Your task to perform on an android device: Search for "jbl charge 4" on walmart.com, select the first entry, and add it to the cart. Image 0: 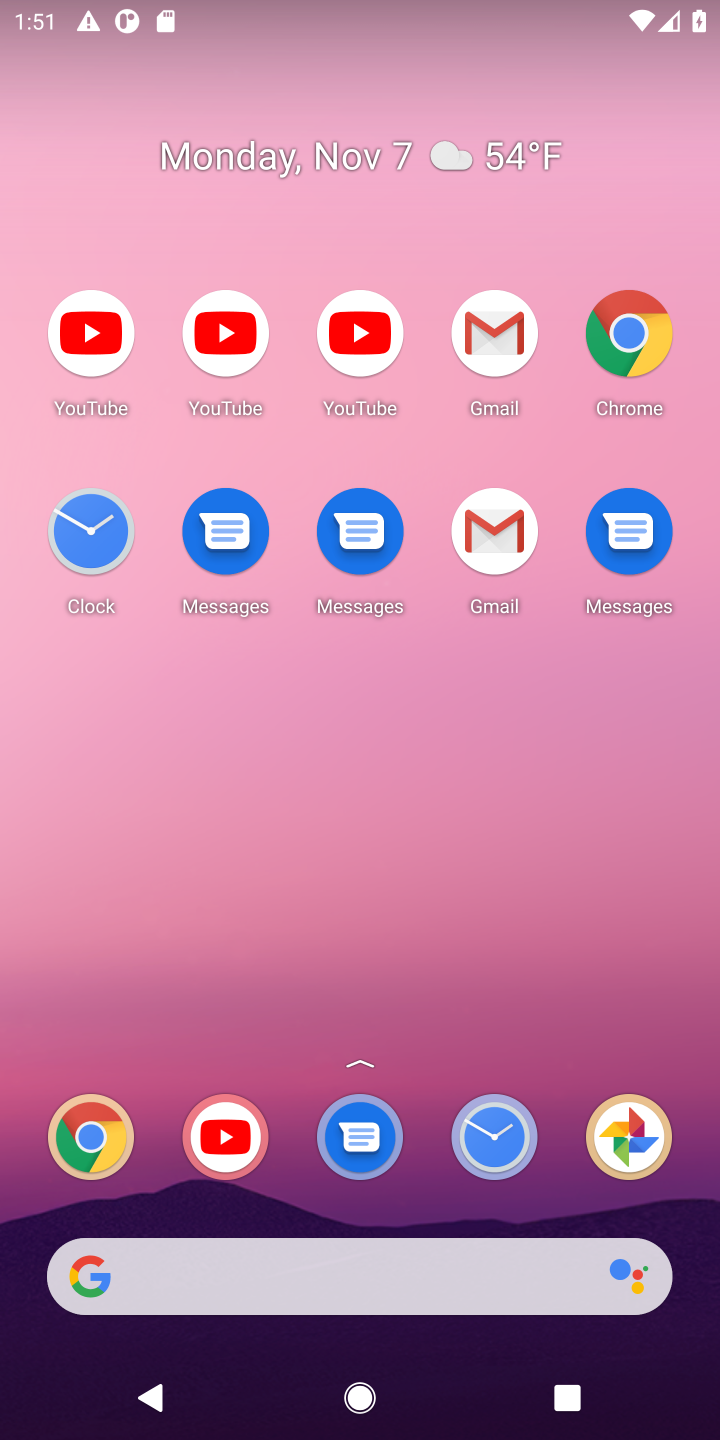
Step 0: drag from (416, 1206) to (360, 290)
Your task to perform on an android device: Search for "jbl charge 4" on walmart.com, select the first entry, and add it to the cart. Image 1: 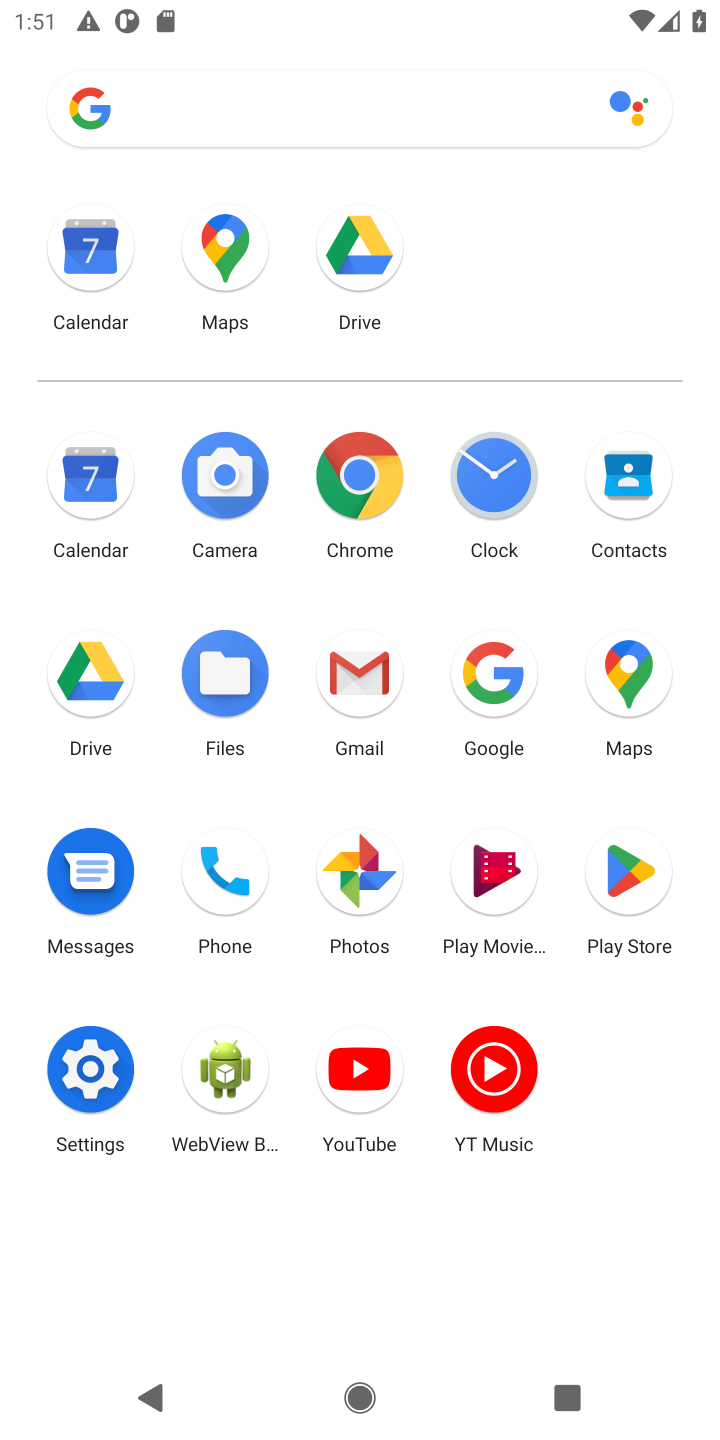
Step 1: click (351, 480)
Your task to perform on an android device: Search for "jbl charge 4" on walmart.com, select the first entry, and add it to the cart. Image 2: 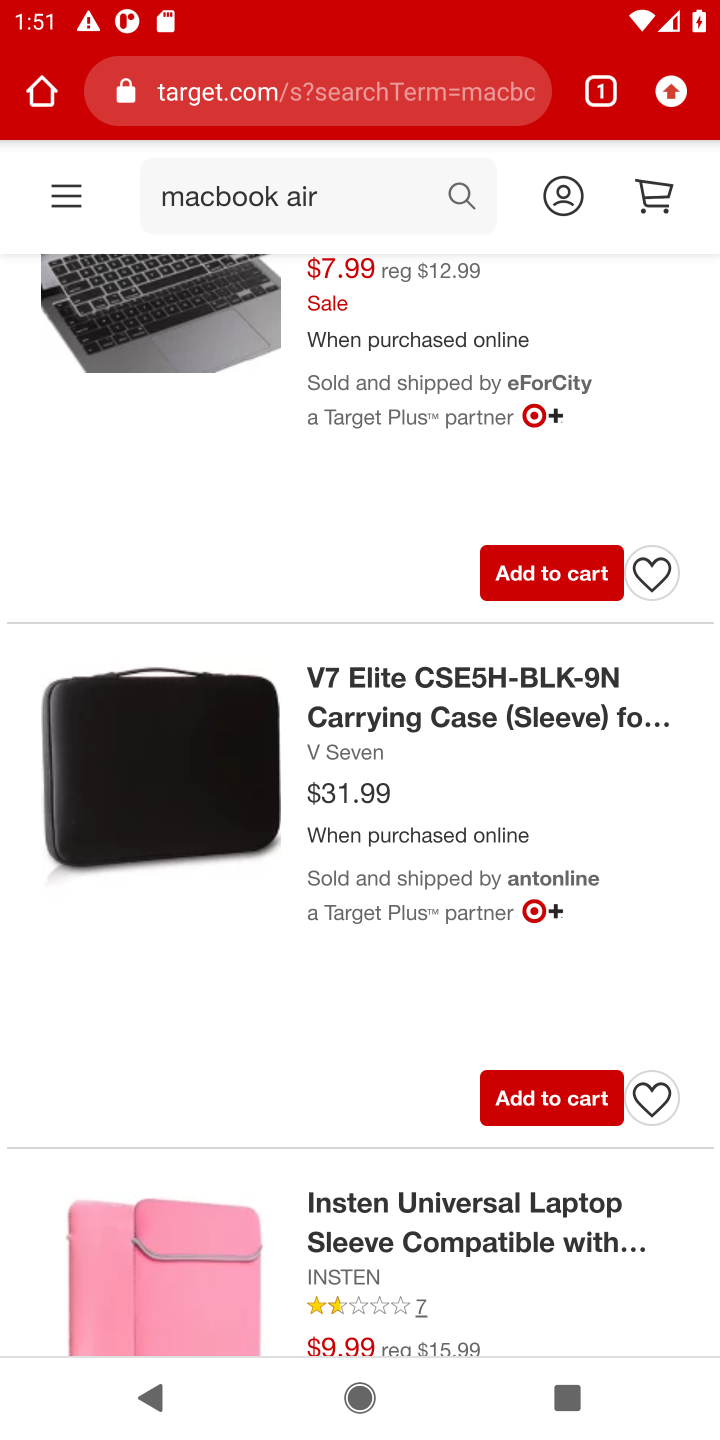
Step 2: click (421, 94)
Your task to perform on an android device: Search for "jbl charge 4" on walmart.com, select the first entry, and add it to the cart. Image 3: 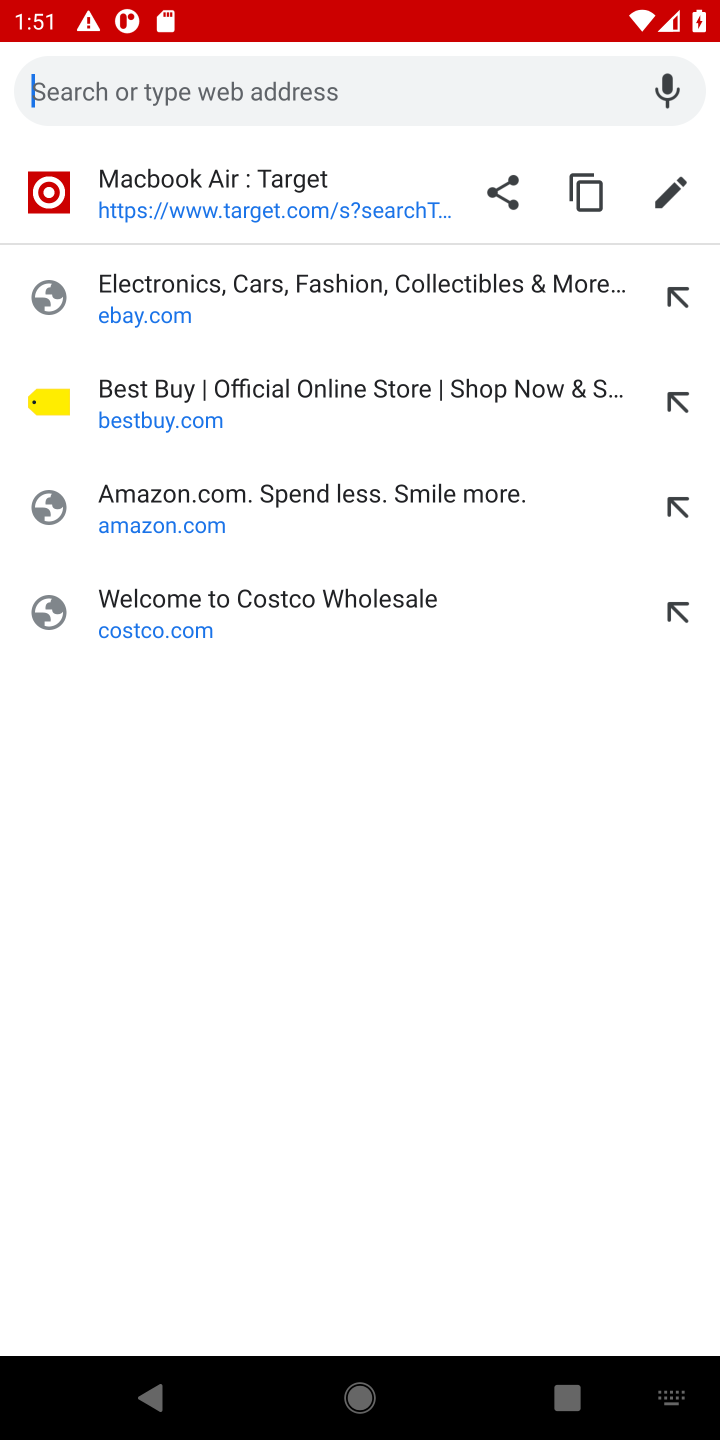
Step 3: type "walmart.com"
Your task to perform on an android device: Search for "jbl charge 4" on walmart.com, select the first entry, and add it to the cart. Image 4: 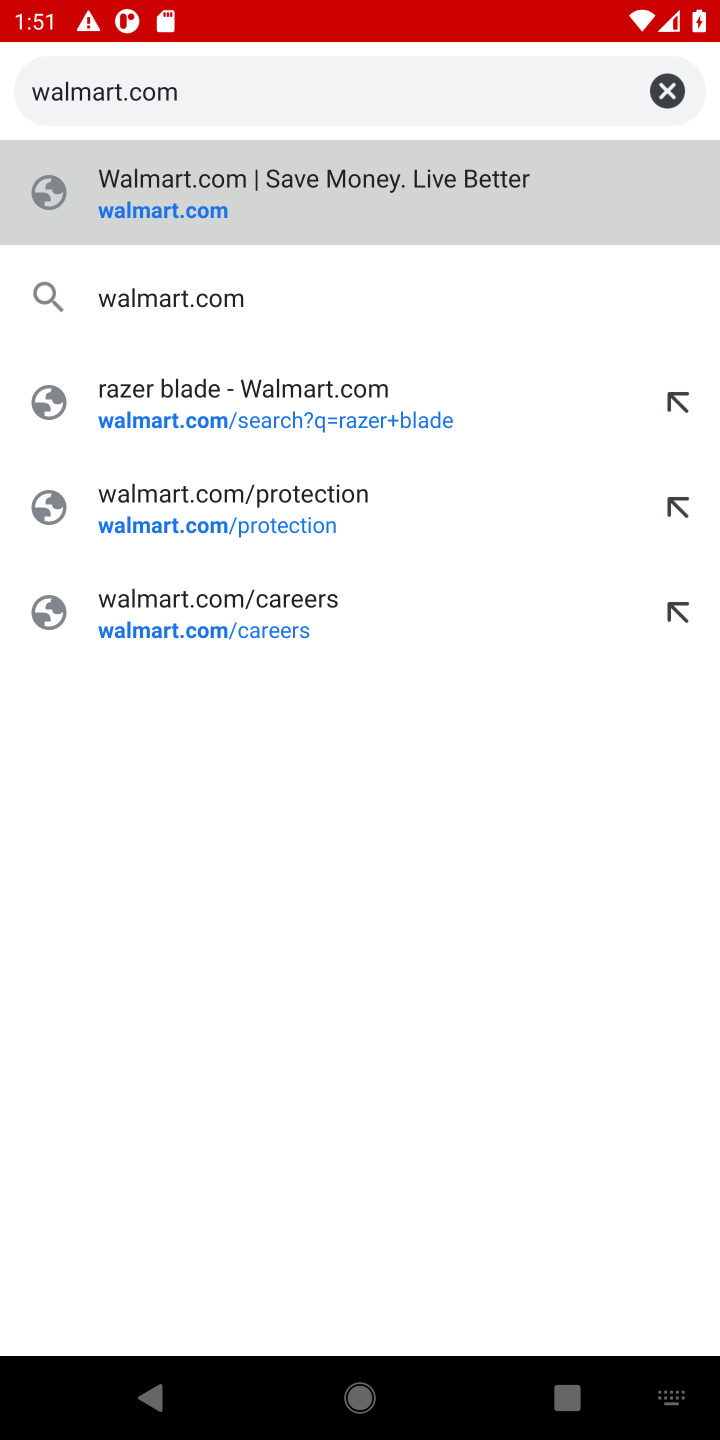
Step 4: press enter
Your task to perform on an android device: Search for "jbl charge 4" on walmart.com, select the first entry, and add it to the cart. Image 5: 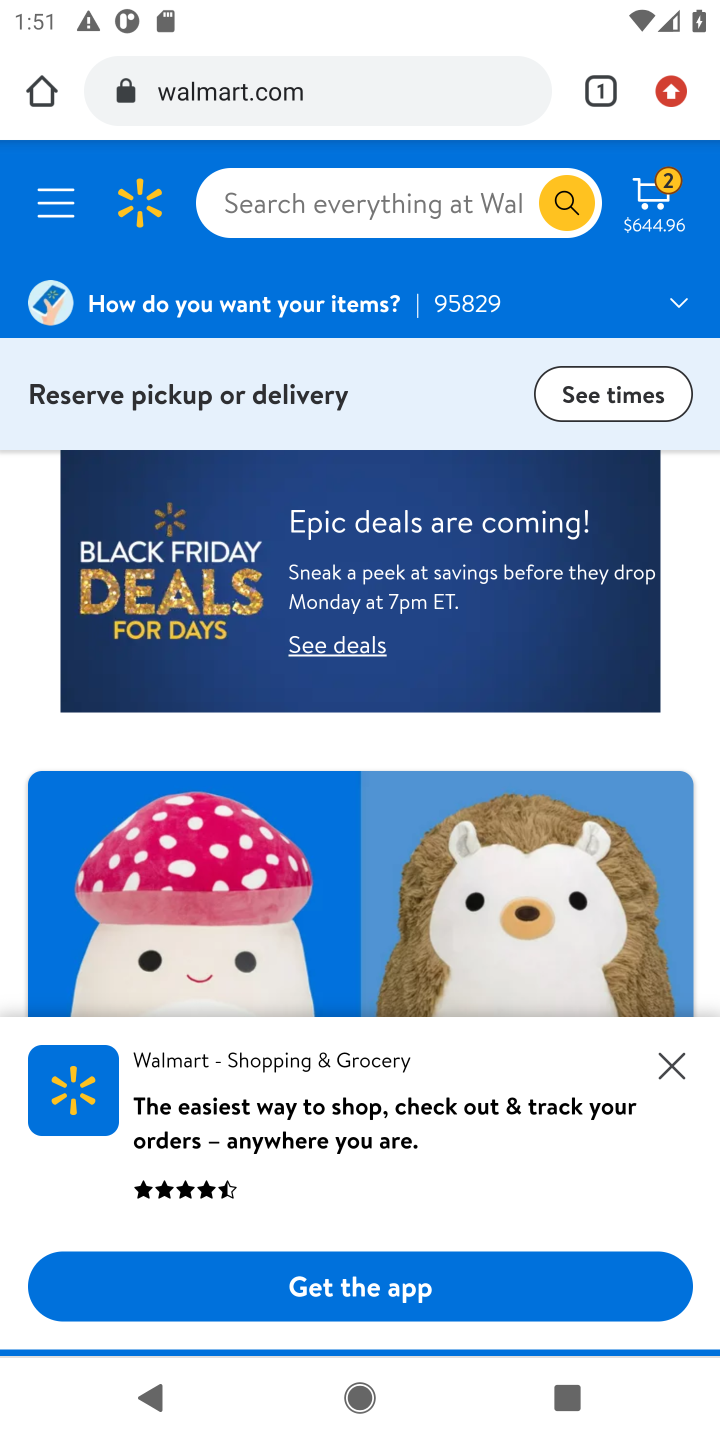
Step 5: click (451, 198)
Your task to perform on an android device: Search for "jbl charge 4" on walmart.com, select the first entry, and add it to the cart. Image 6: 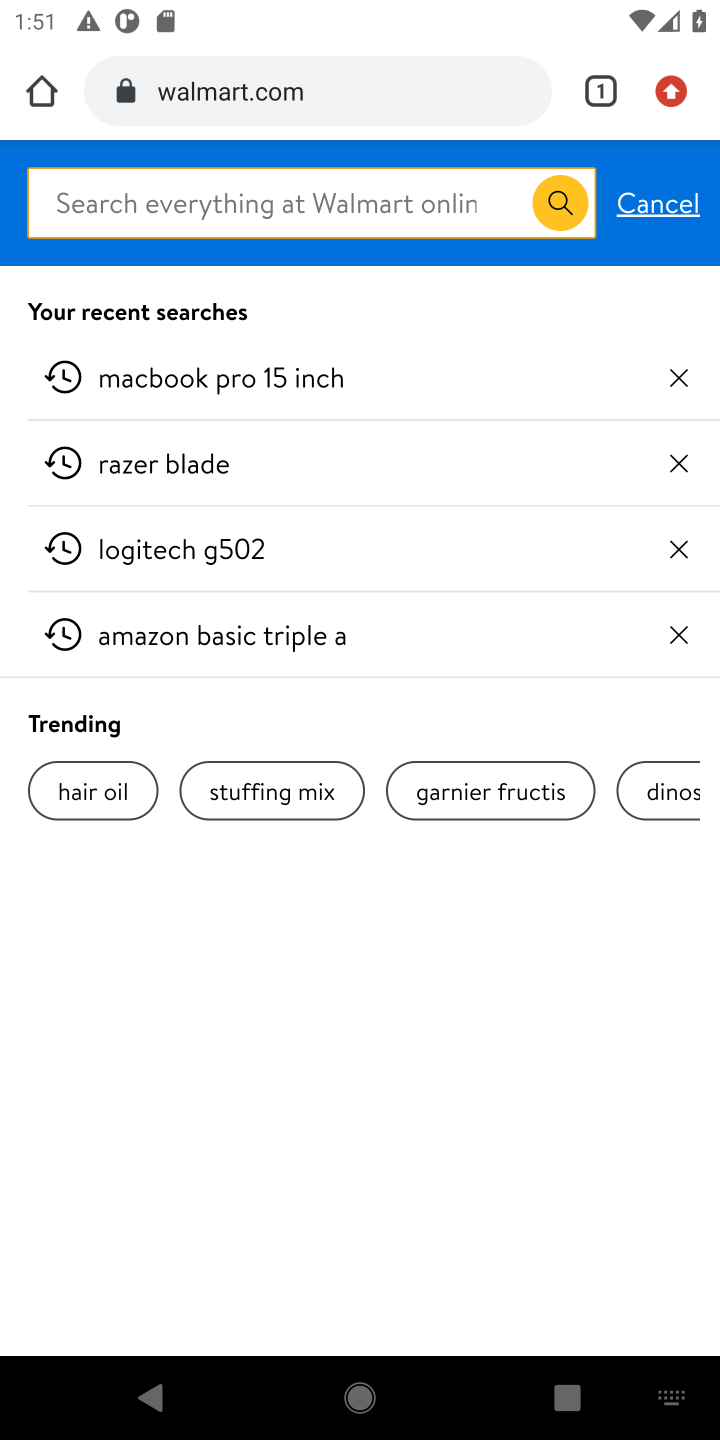
Step 6: type "jbl charge 4"
Your task to perform on an android device: Search for "jbl charge 4" on walmart.com, select the first entry, and add it to the cart. Image 7: 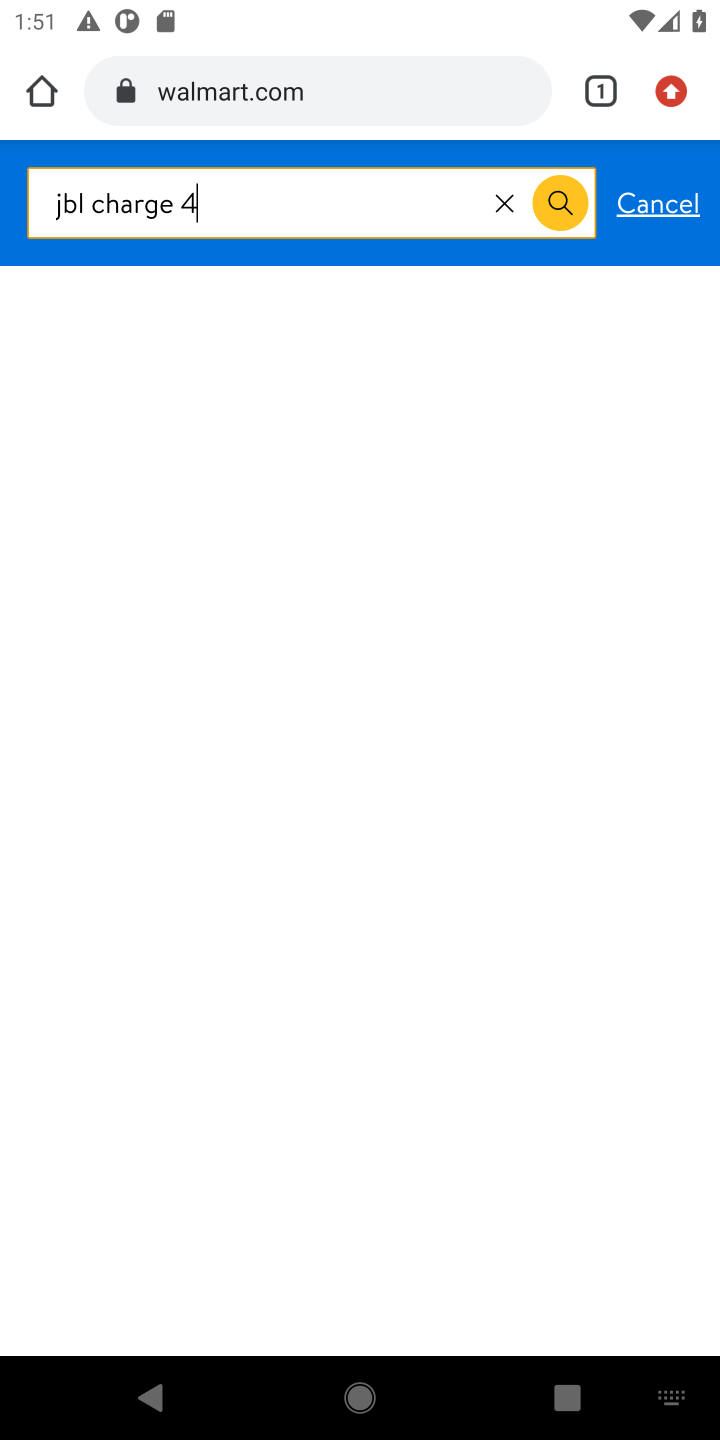
Step 7: press enter
Your task to perform on an android device: Search for "jbl charge 4" on walmart.com, select the first entry, and add it to the cart. Image 8: 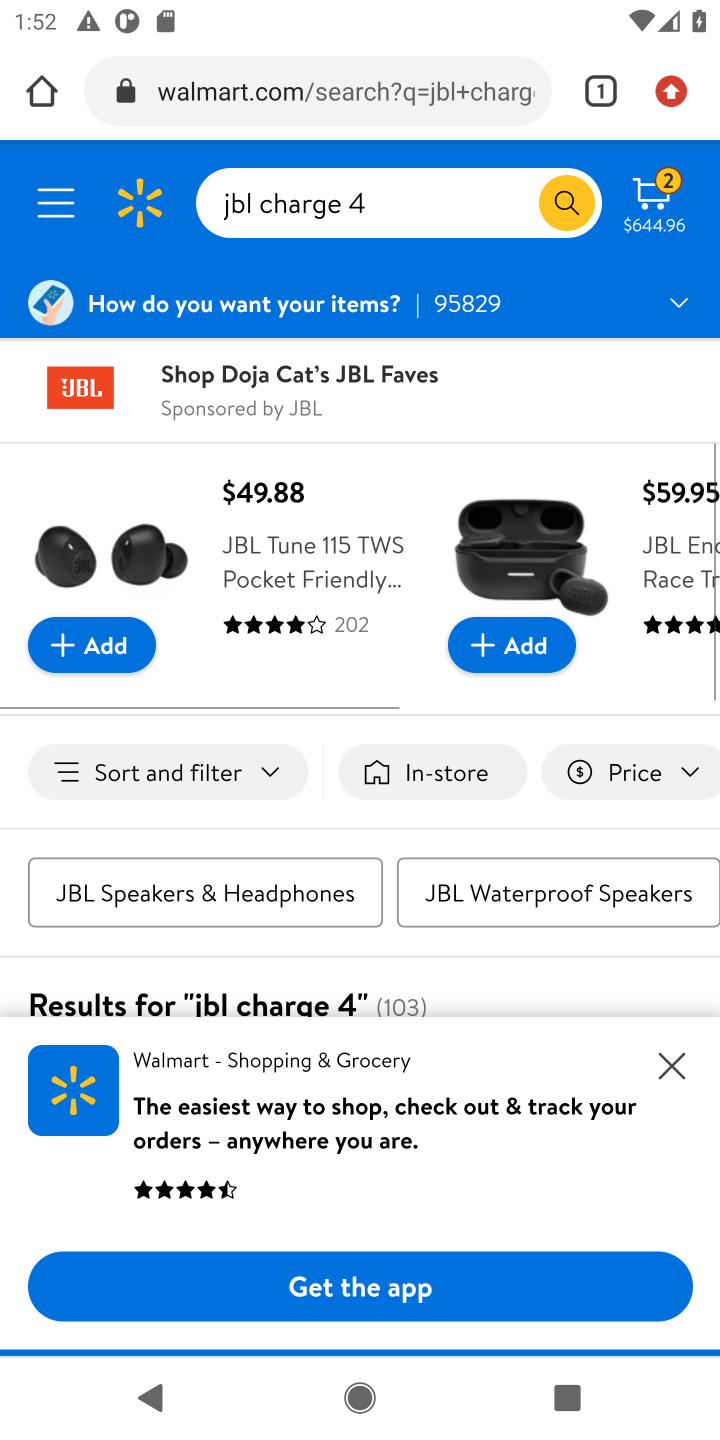
Step 8: click (662, 1069)
Your task to perform on an android device: Search for "jbl charge 4" on walmart.com, select the first entry, and add it to the cart. Image 9: 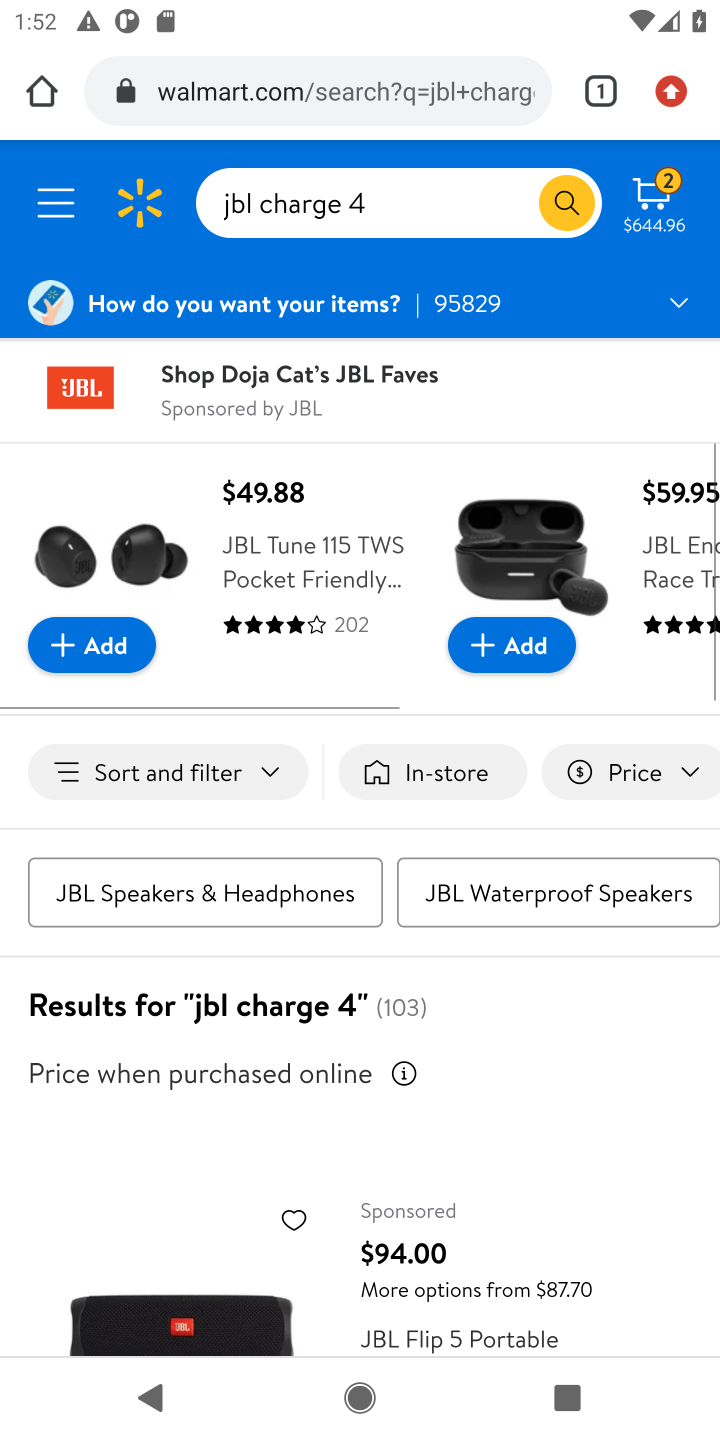
Step 9: drag from (462, 1168) to (476, 327)
Your task to perform on an android device: Search for "jbl charge 4" on walmart.com, select the first entry, and add it to the cart. Image 10: 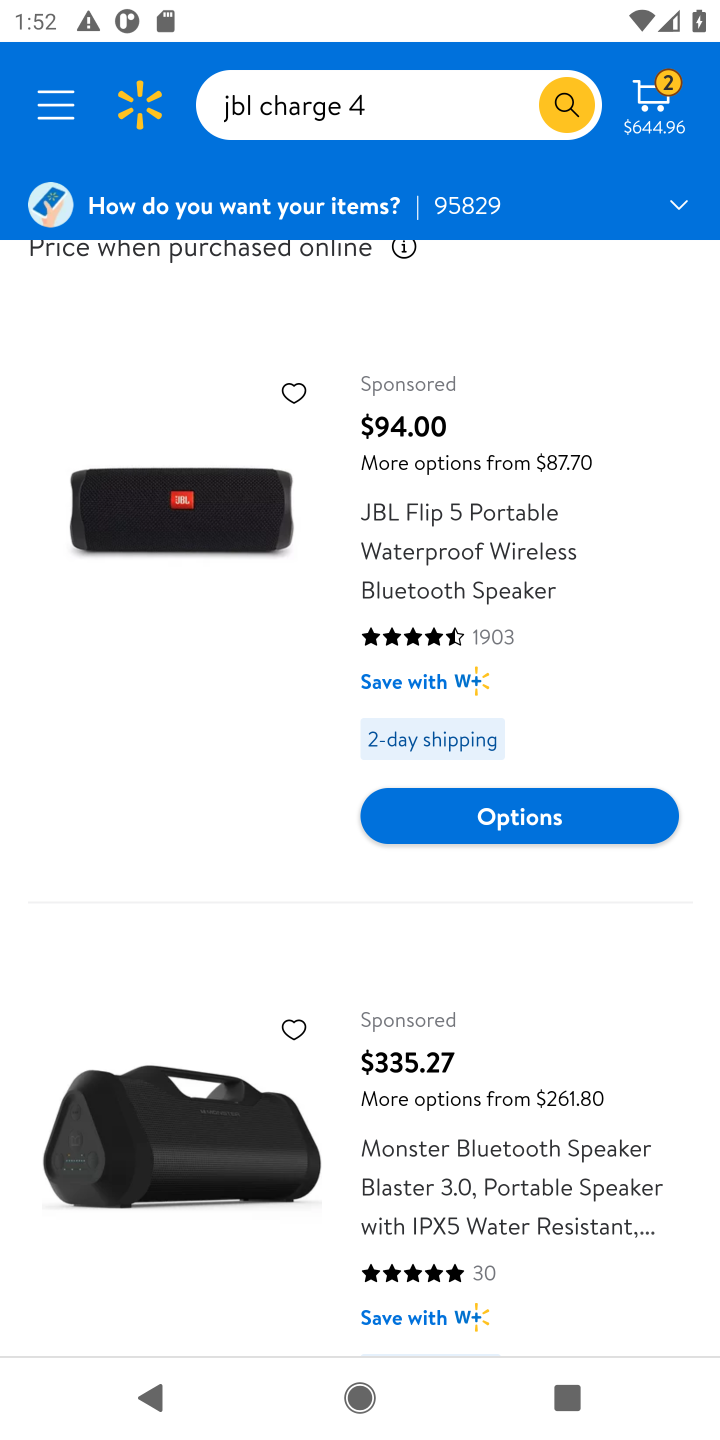
Step 10: drag from (449, 1280) to (497, 383)
Your task to perform on an android device: Search for "jbl charge 4" on walmart.com, select the first entry, and add it to the cart. Image 11: 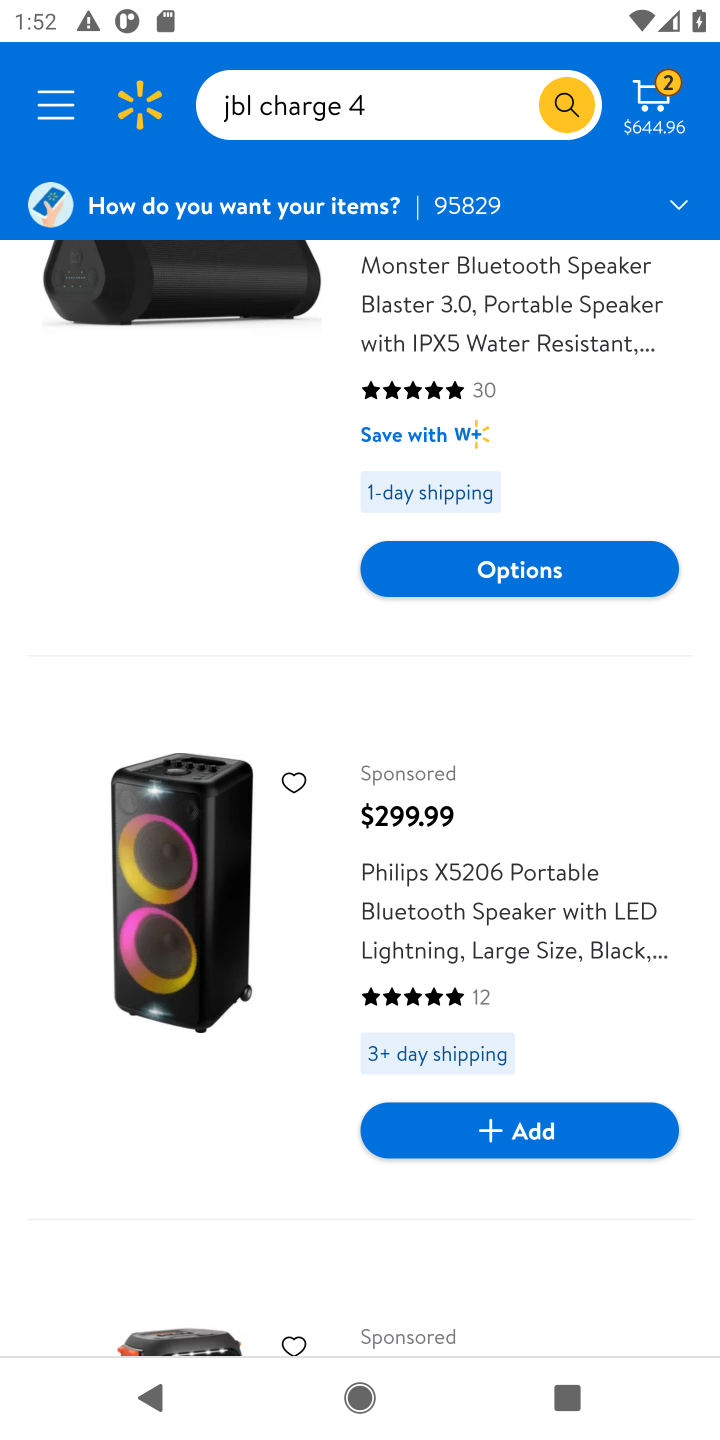
Step 11: drag from (462, 1316) to (406, 528)
Your task to perform on an android device: Search for "jbl charge 4" on walmart.com, select the first entry, and add it to the cart. Image 12: 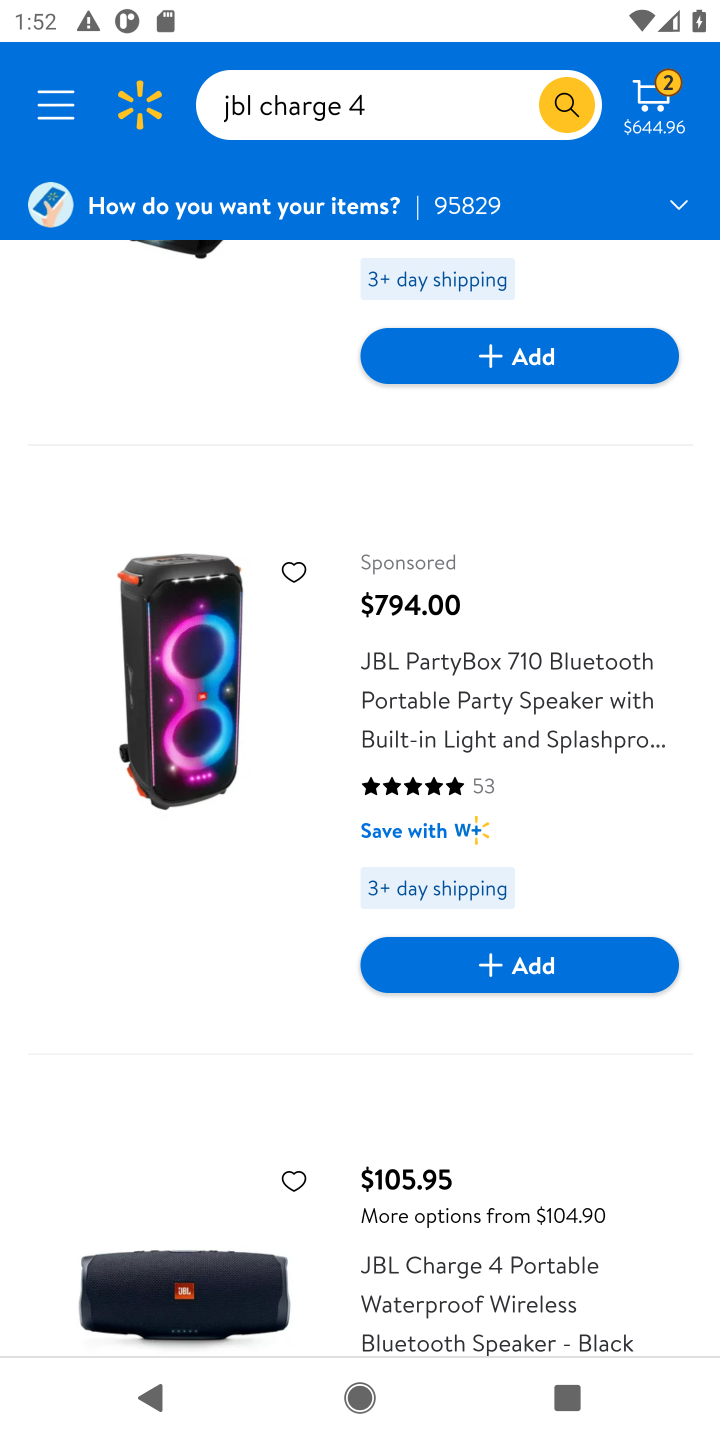
Step 12: drag from (418, 1320) to (423, 749)
Your task to perform on an android device: Search for "jbl charge 4" on walmart.com, select the first entry, and add it to the cart. Image 13: 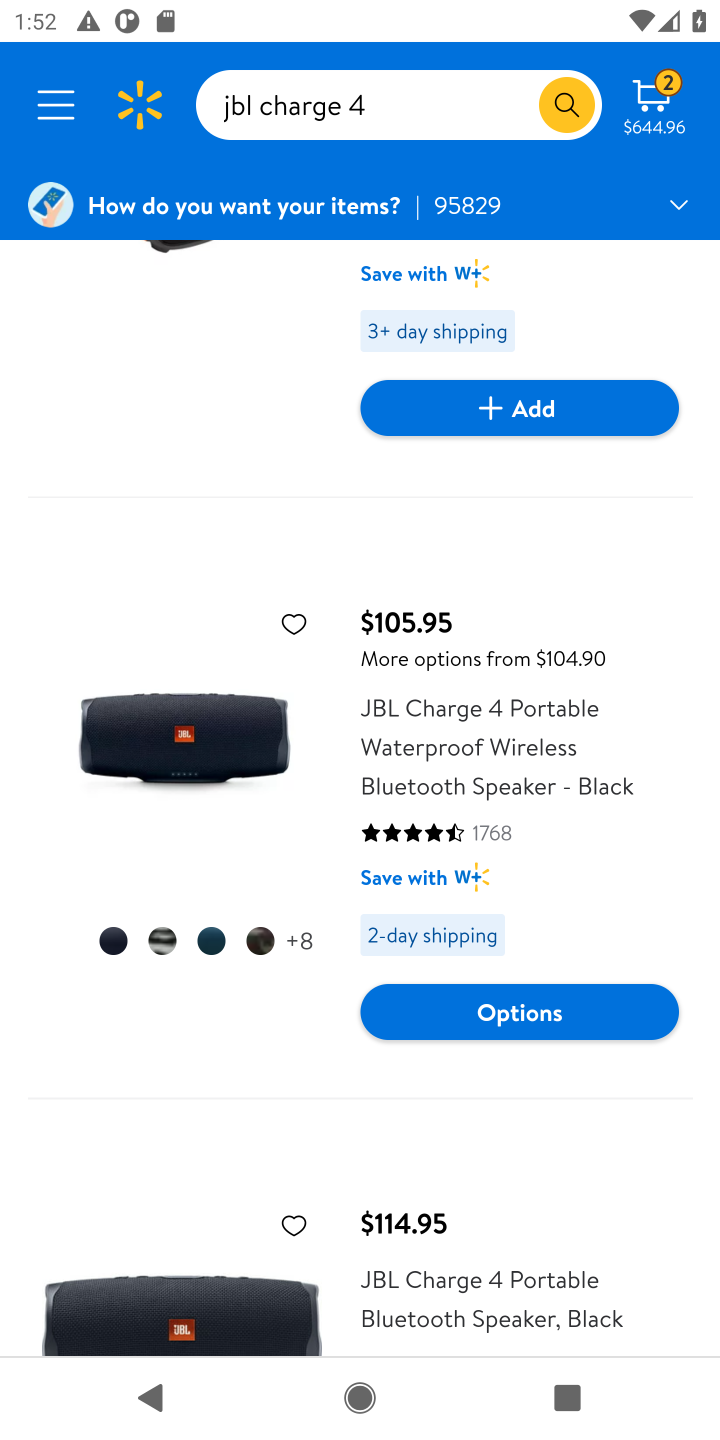
Step 13: drag from (420, 1240) to (497, 655)
Your task to perform on an android device: Search for "jbl charge 4" on walmart.com, select the first entry, and add it to the cart. Image 14: 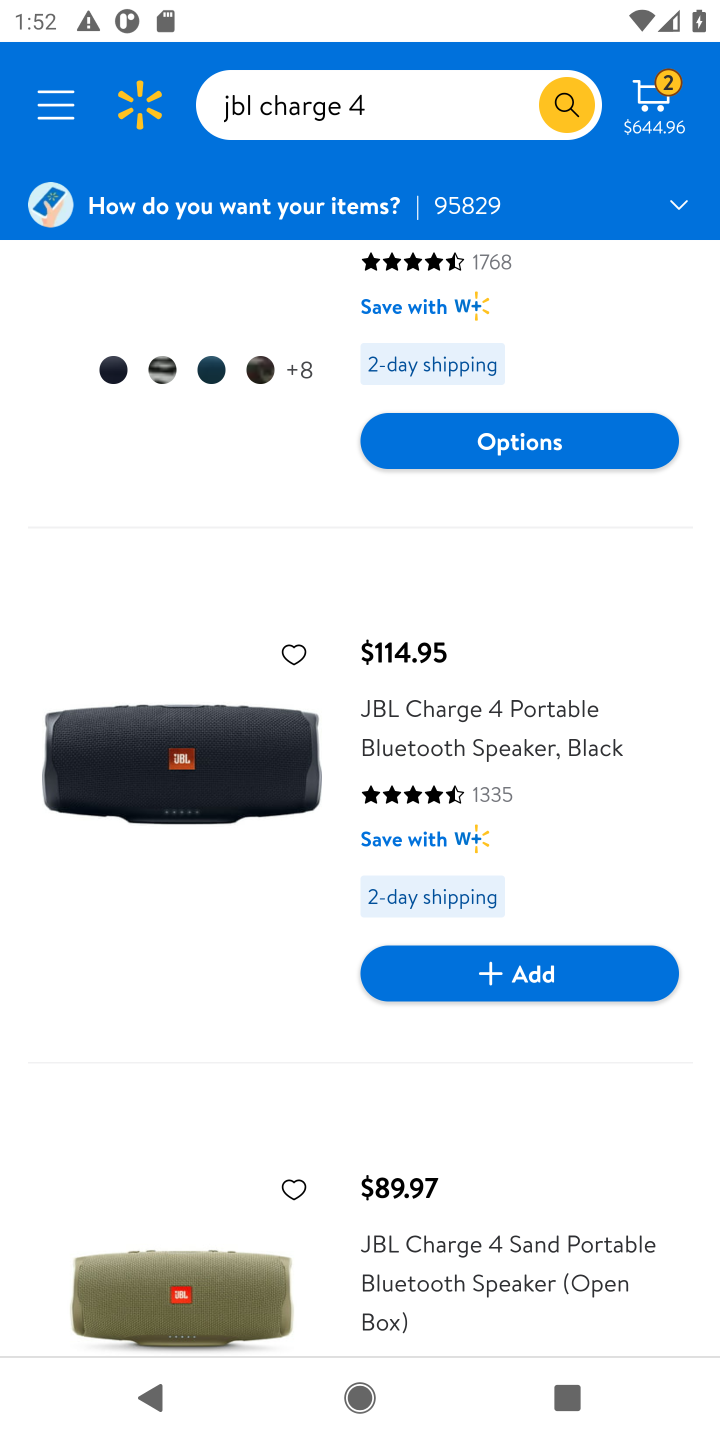
Step 14: click (530, 428)
Your task to perform on an android device: Search for "jbl charge 4" on walmart.com, select the first entry, and add it to the cart. Image 15: 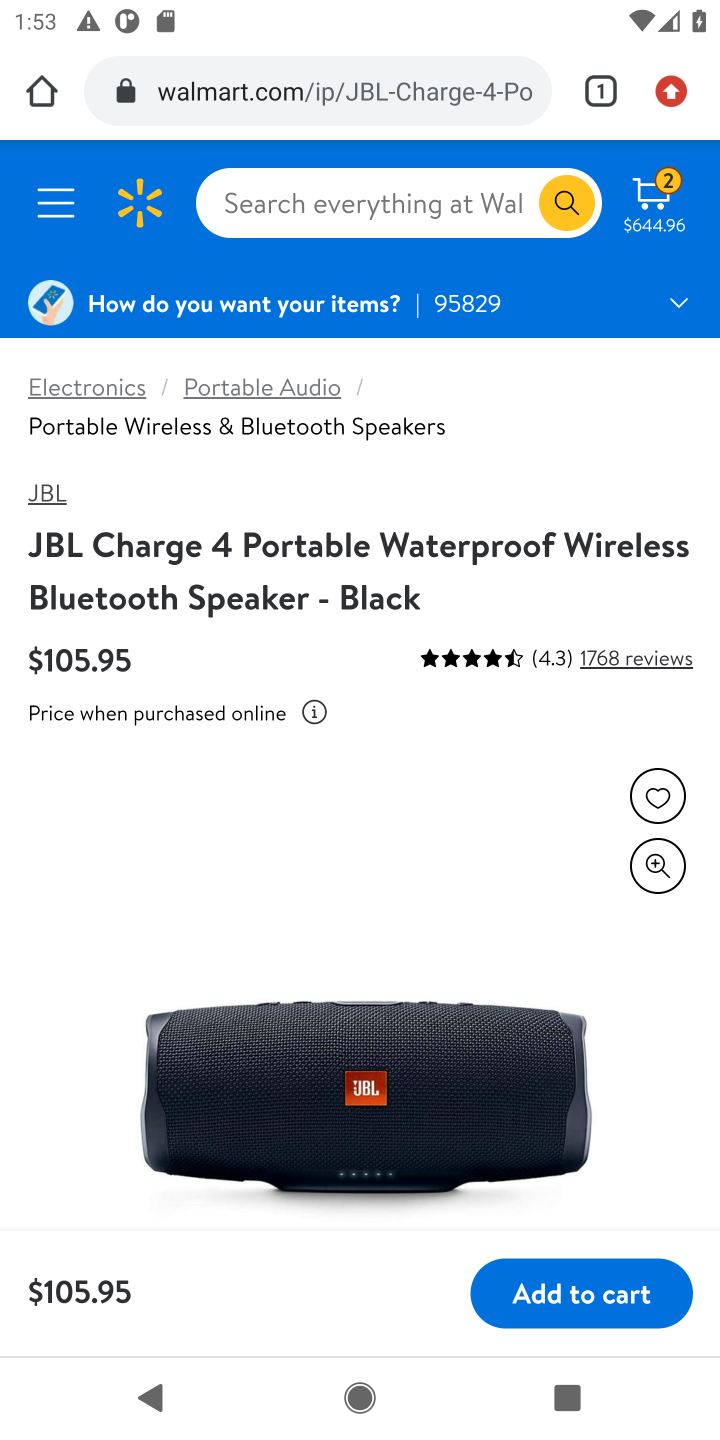
Step 15: drag from (472, 1139) to (539, 293)
Your task to perform on an android device: Search for "jbl charge 4" on walmart.com, select the first entry, and add it to the cart. Image 16: 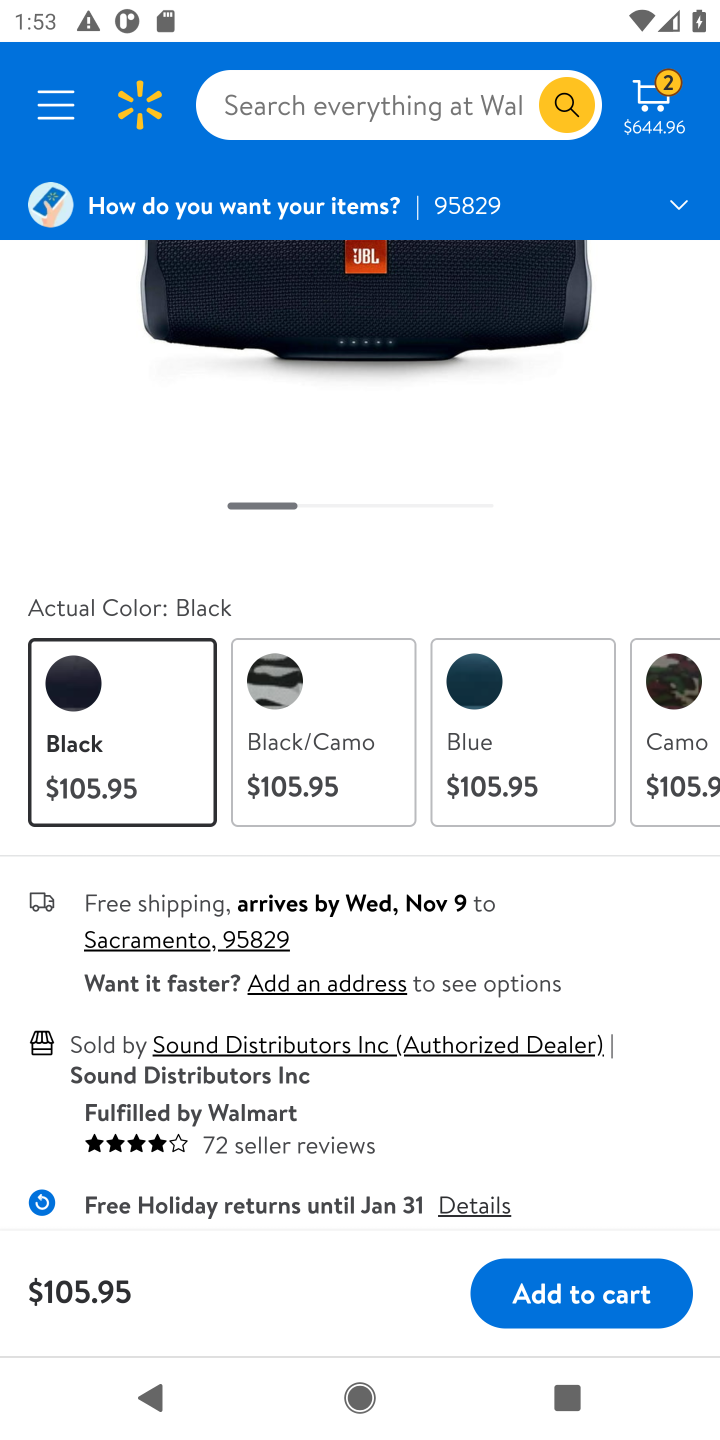
Step 16: click (594, 1305)
Your task to perform on an android device: Search for "jbl charge 4" on walmart.com, select the first entry, and add it to the cart. Image 17: 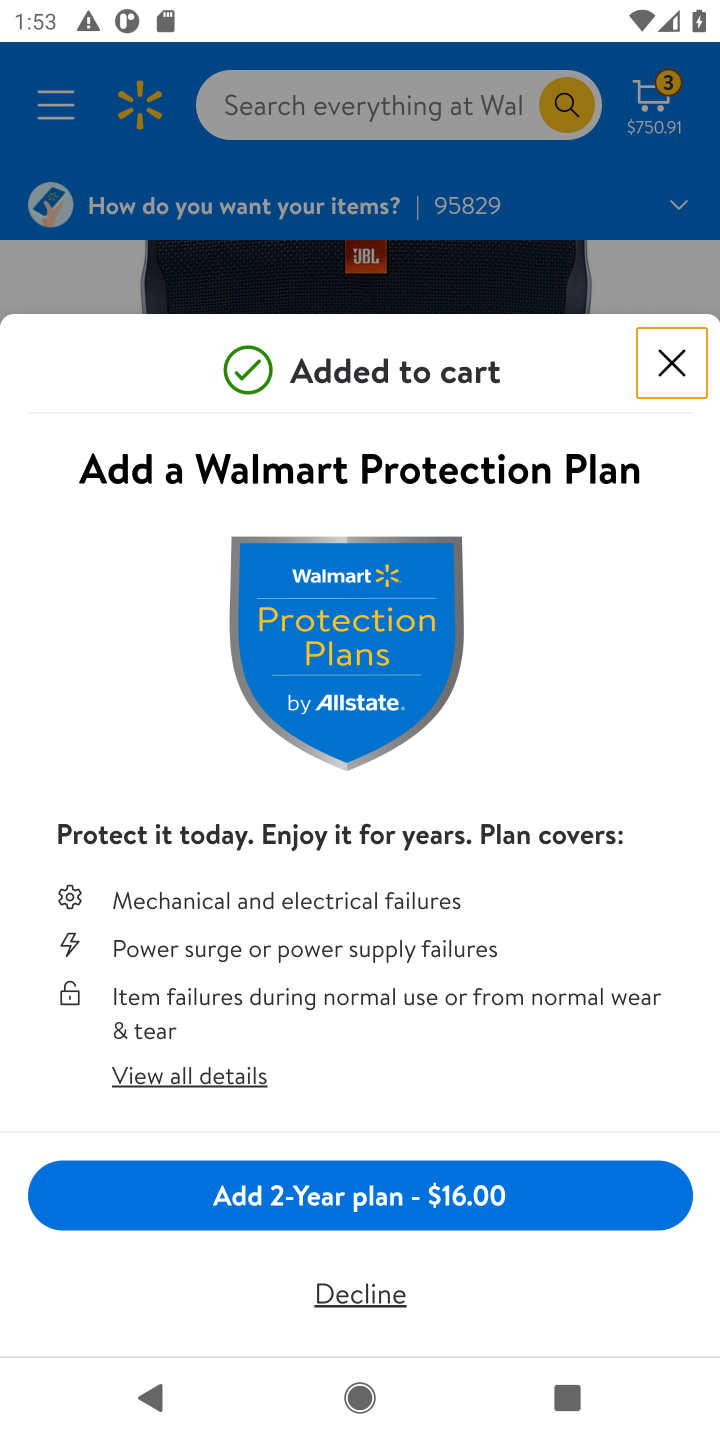
Step 17: task complete